Your task to perform on an android device: Open sound settings Image 0: 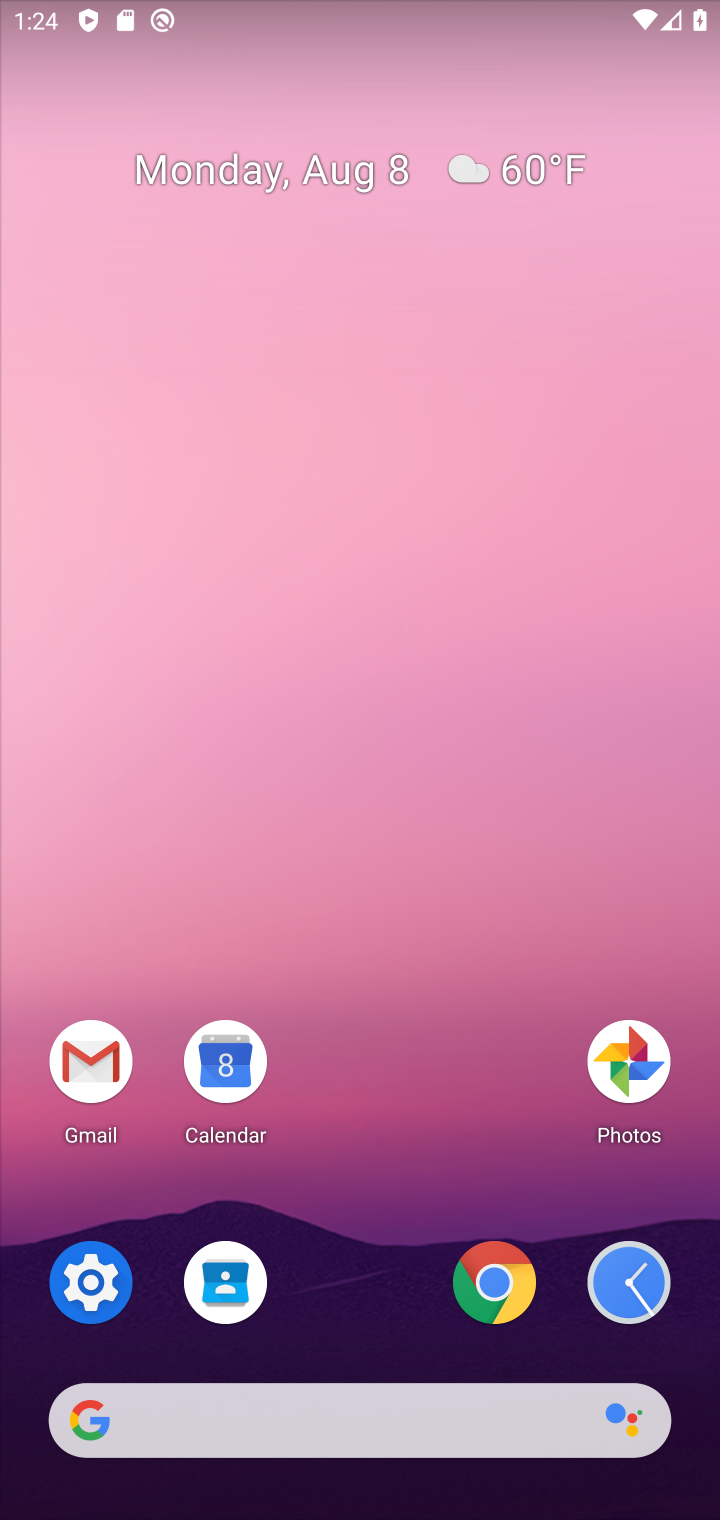
Step 0: press home button
Your task to perform on an android device: Open sound settings Image 1: 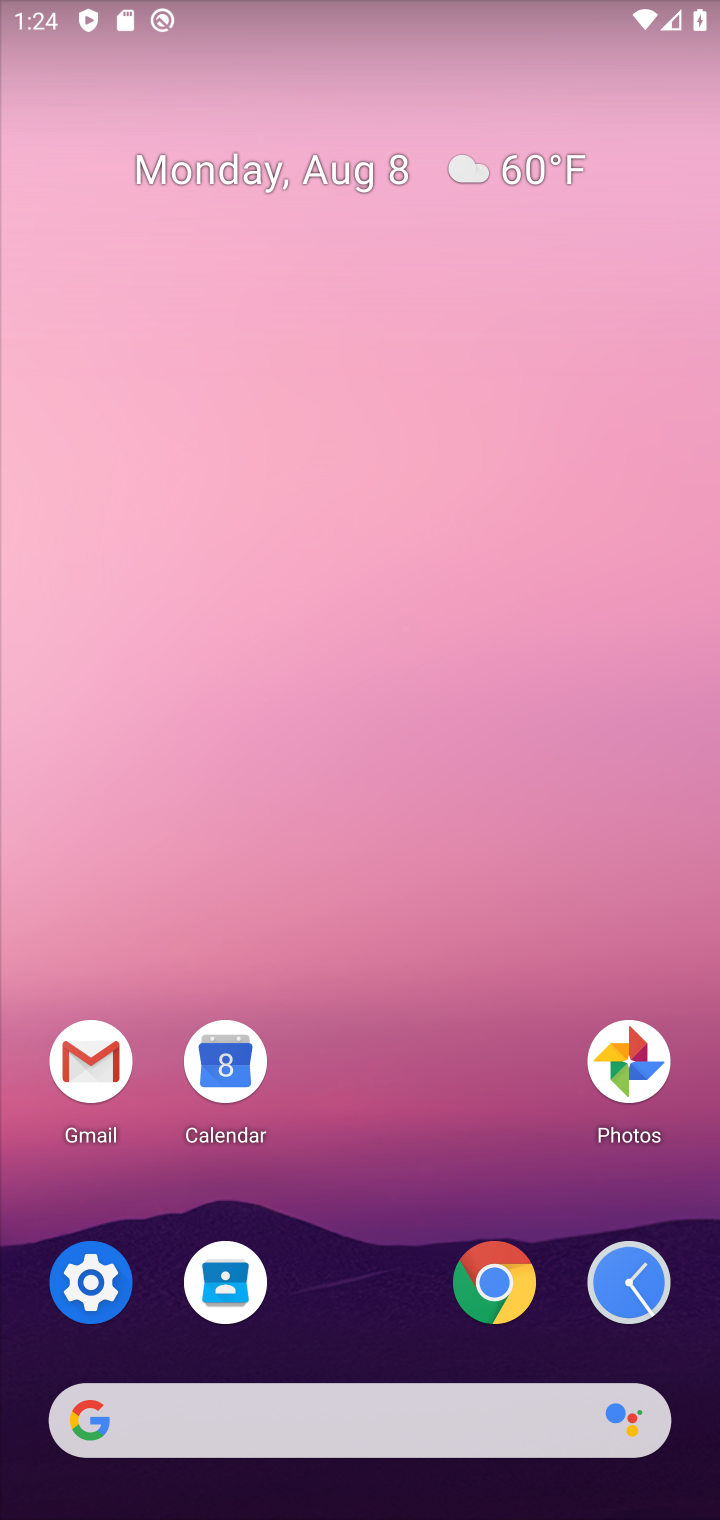
Step 1: click (95, 1292)
Your task to perform on an android device: Open sound settings Image 2: 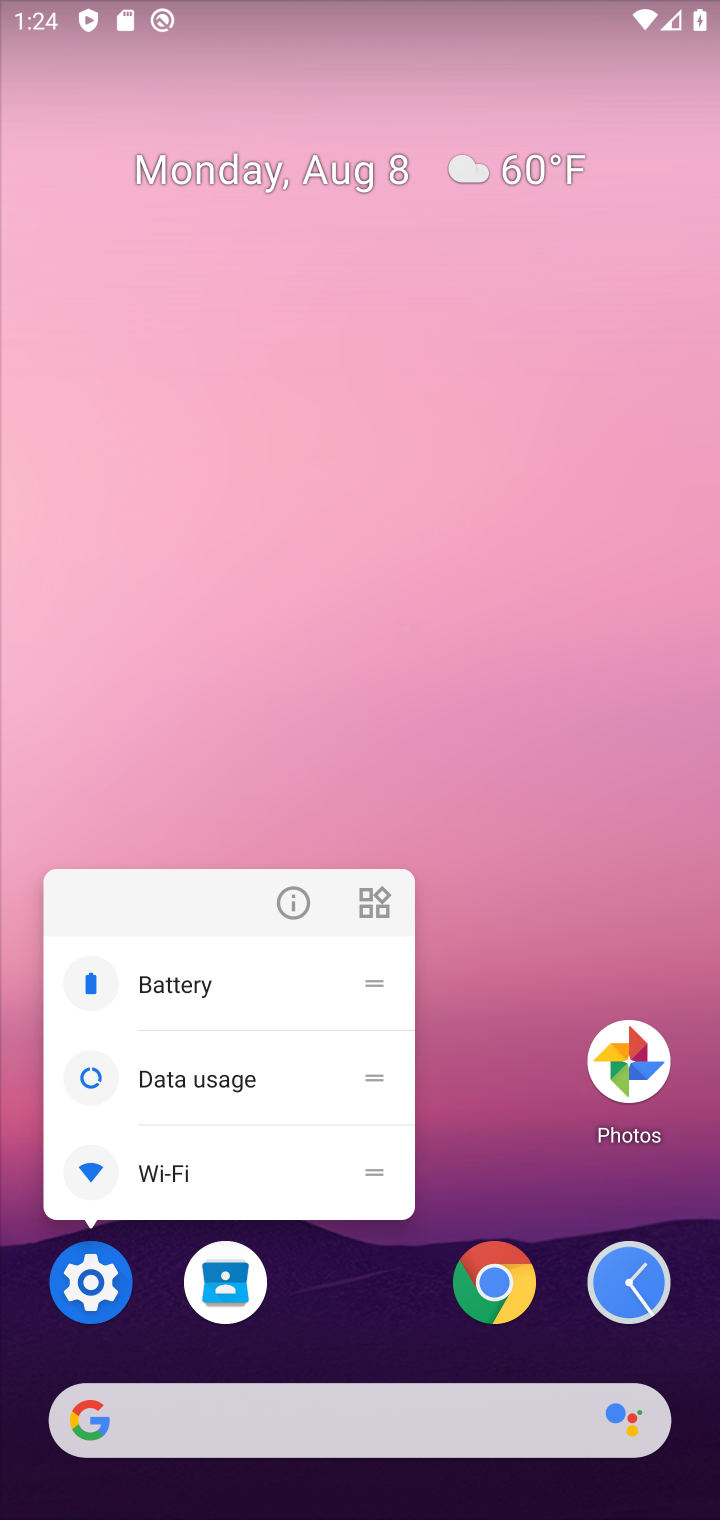
Step 2: click (95, 1283)
Your task to perform on an android device: Open sound settings Image 3: 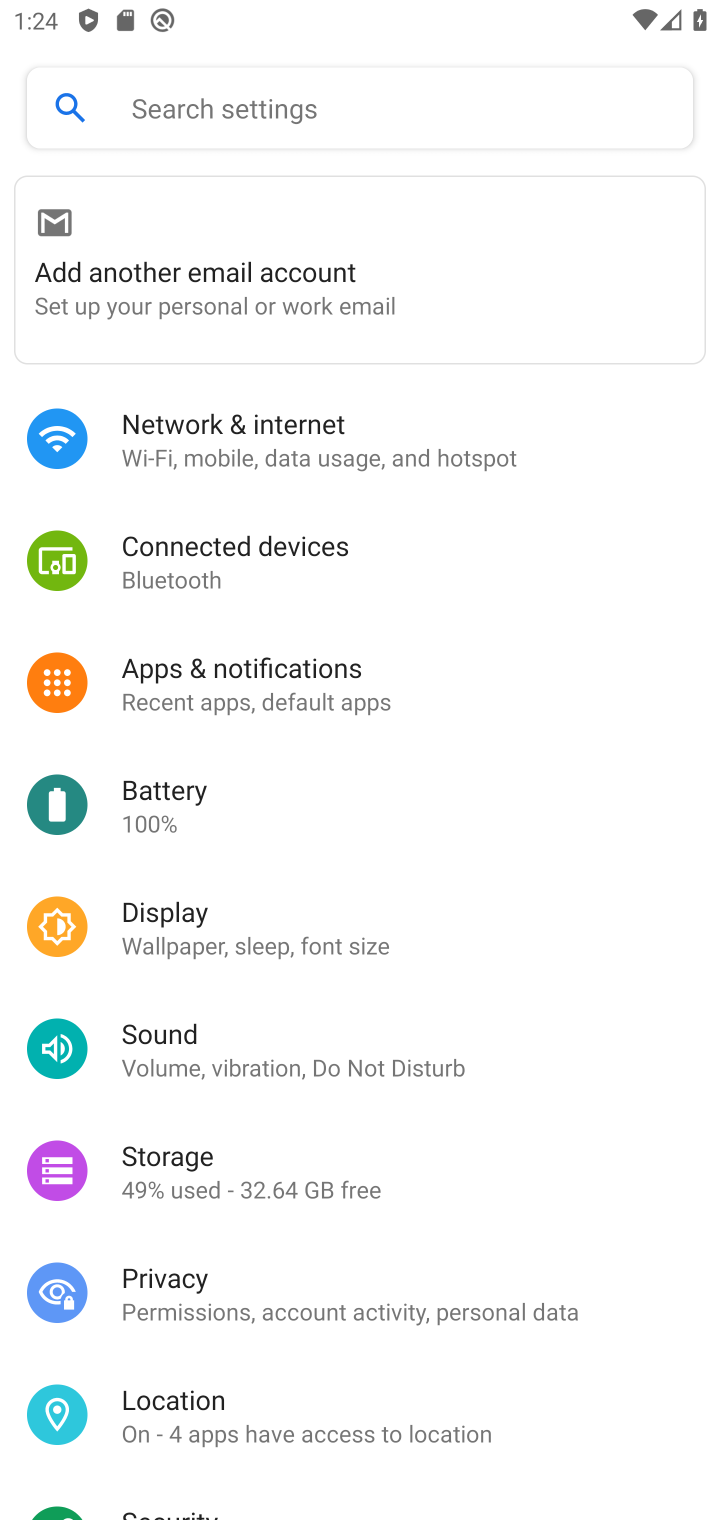
Step 3: drag from (343, 1249) to (301, 537)
Your task to perform on an android device: Open sound settings Image 4: 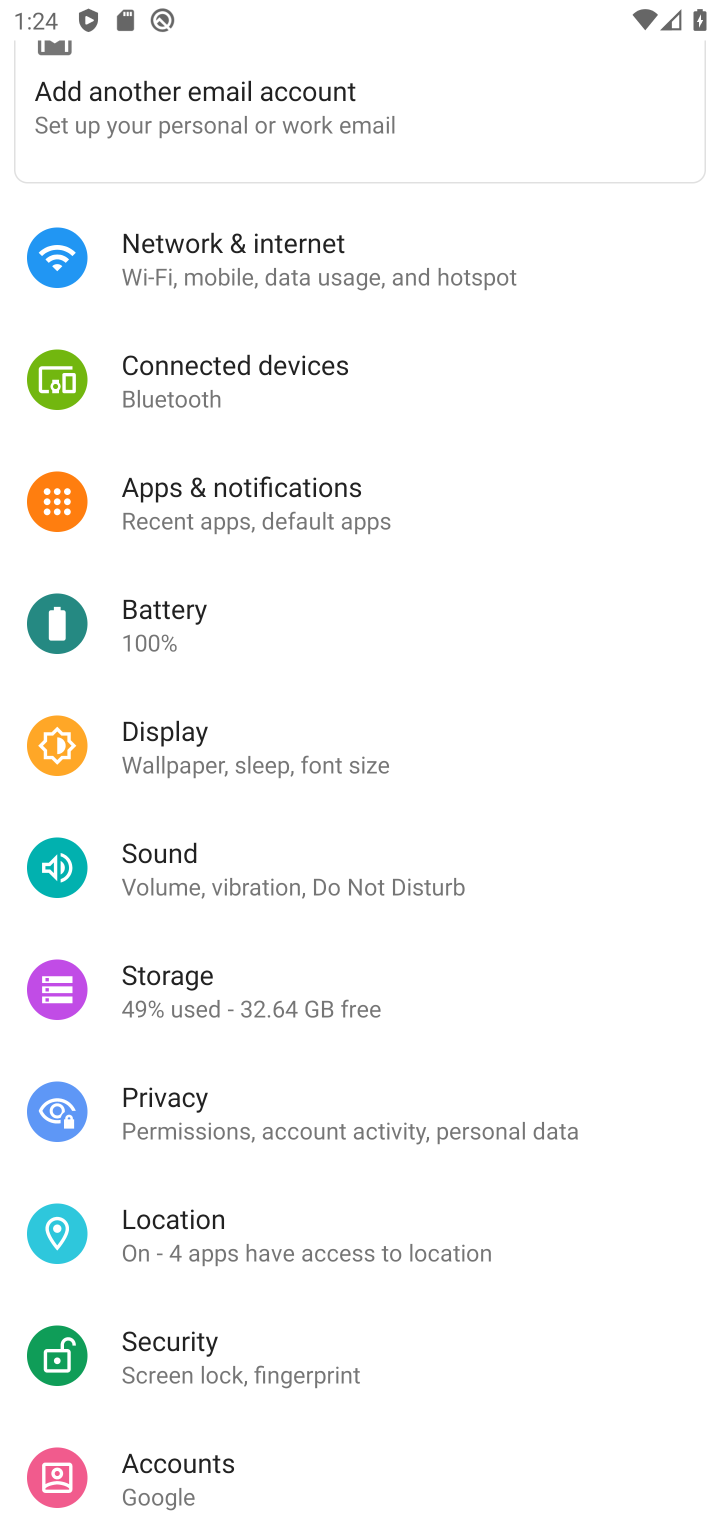
Step 4: click (168, 848)
Your task to perform on an android device: Open sound settings Image 5: 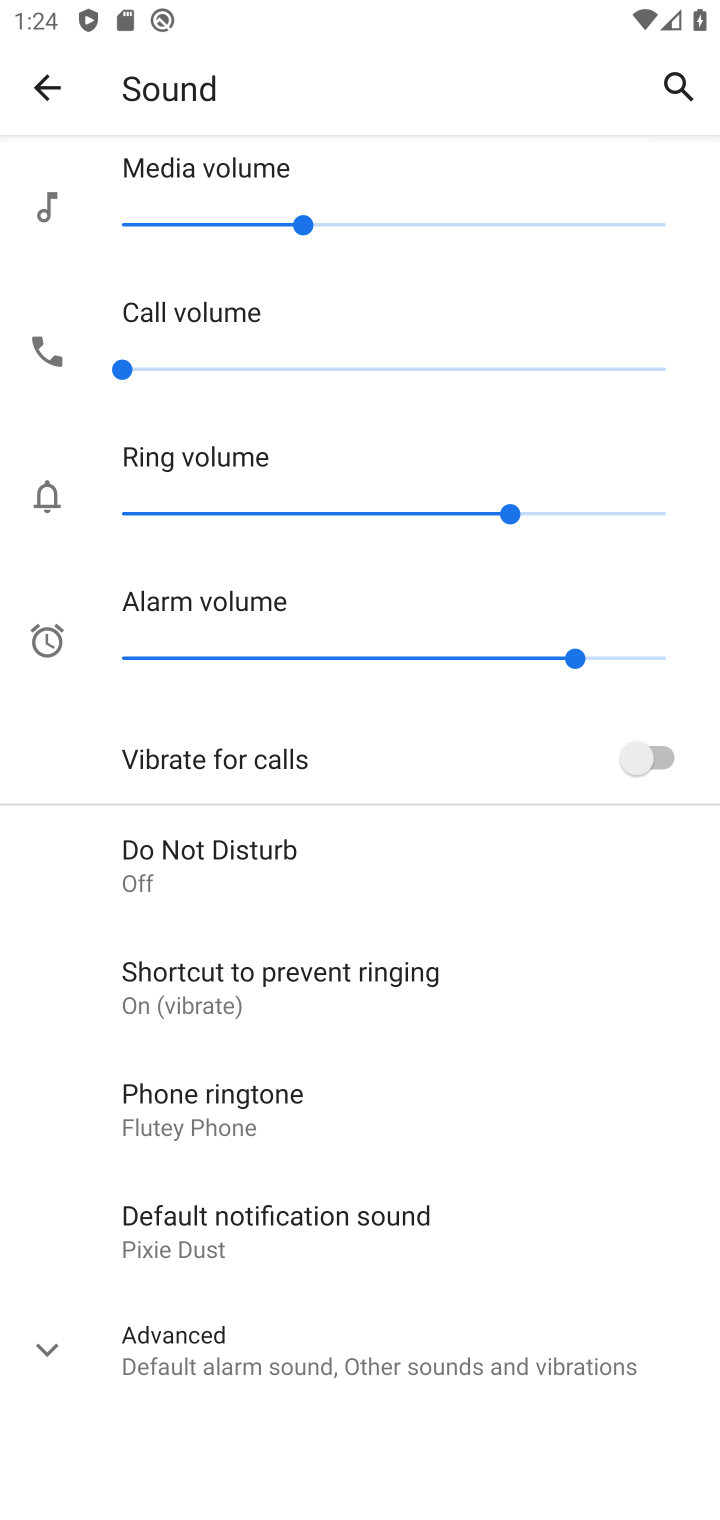
Step 5: task complete